Your task to perform on an android device: Go to ESPN.com Image 0: 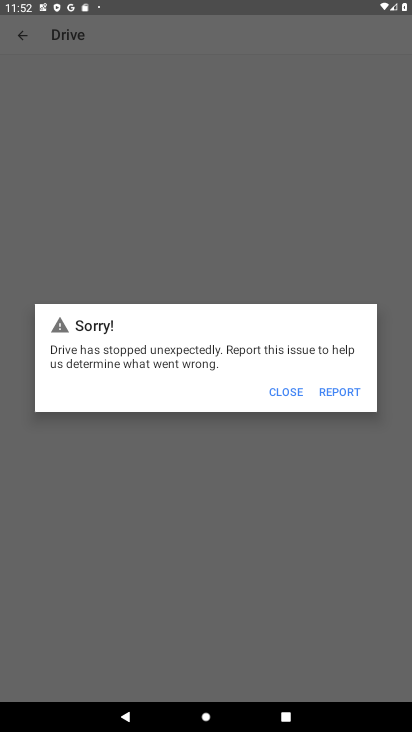
Step 0: press home button
Your task to perform on an android device: Go to ESPN.com Image 1: 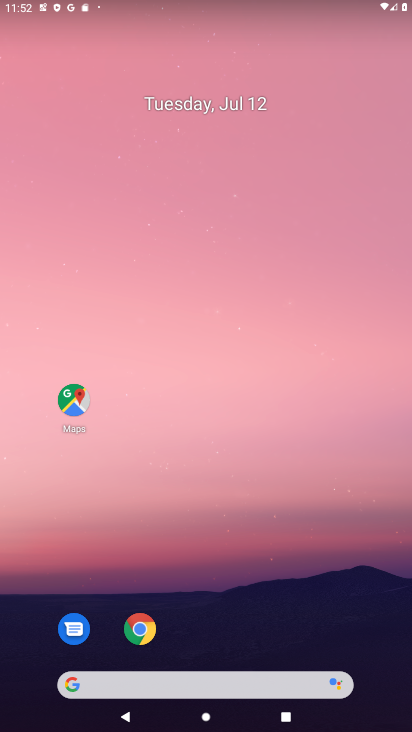
Step 1: drag from (274, 623) to (220, 80)
Your task to perform on an android device: Go to ESPN.com Image 2: 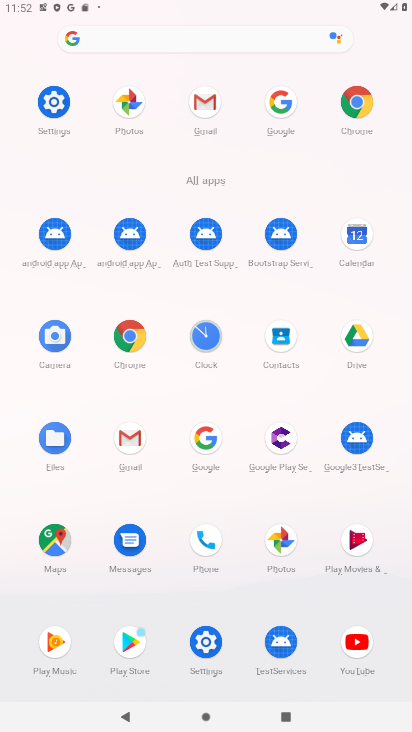
Step 2: click (360, 101)
Your task to perform on an android device: Go to ESPN.com Image 3: 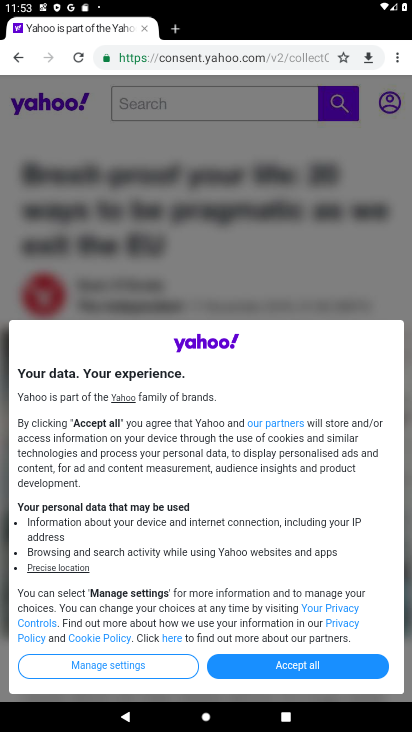
Step 3: click (236, 57)
Your task to perform on an android device: Go to ESPN.com Image 4: 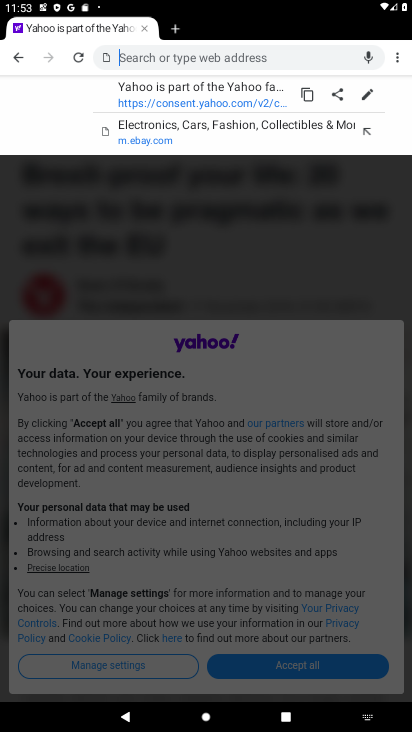
Step 4: type "espn.com"
Your task to perform on an android device: Go to ESPN.com Image 5: 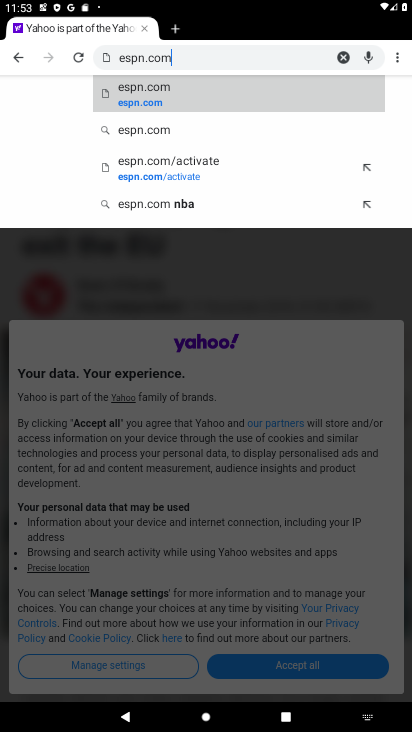
Step 5: click (132, 103)
Your task to perform on an android device: Go to ESPN.com Image 6: 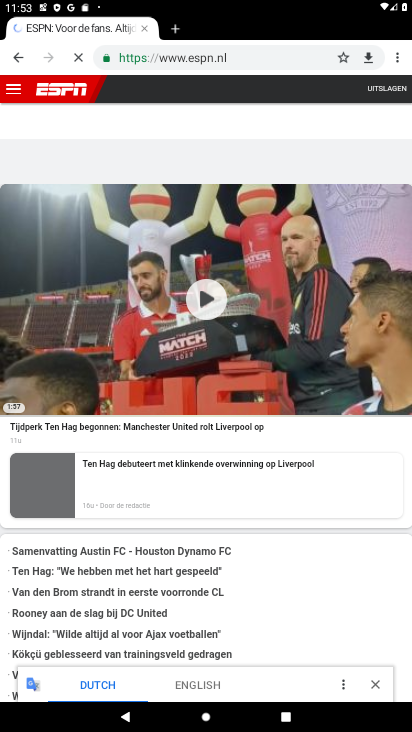
Step 6: task complete